Your task to perform on an android device: Open Android settings Image 0: 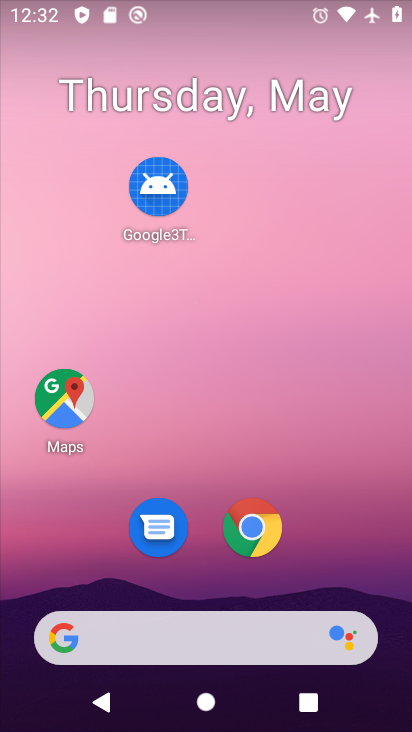
Step 0: press home button
Your task to perform on an android device: Open Android settings Image 1: 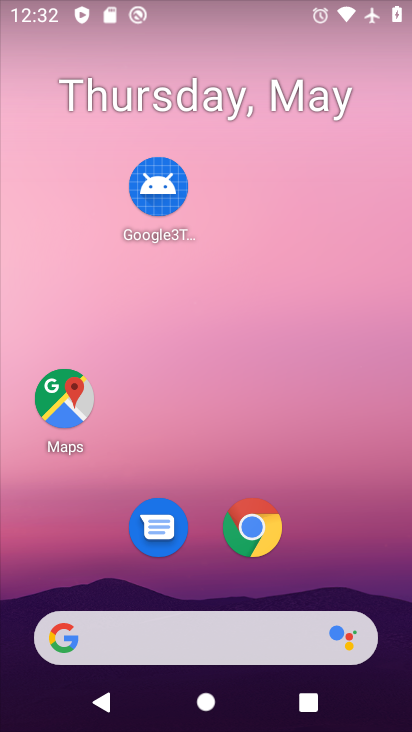
Step 1: drag from (212, 584) to (220, 53)
Your task to perform on an android device: Open Android settings Image 2: 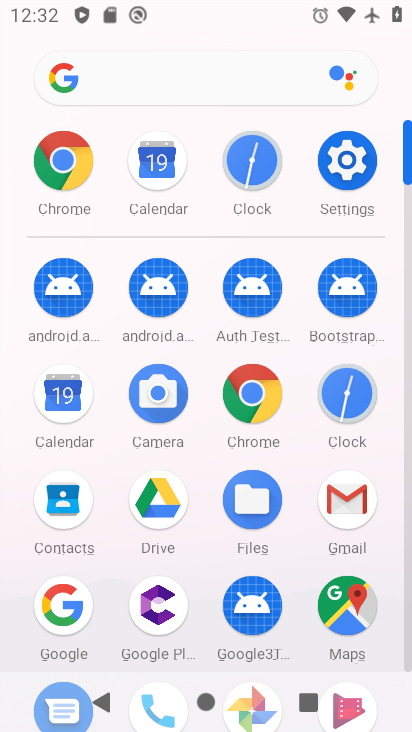
Step 2: click (348, 156)
Your task to perform on an android device: Open Android settings Image 3: 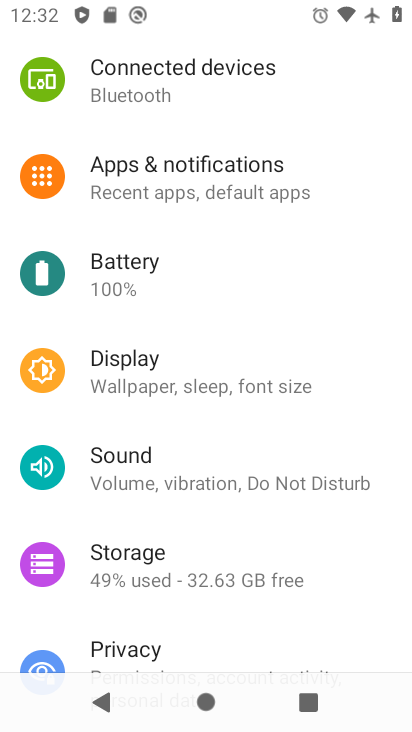
Step 3: drag from (216, 622) to (227, 38)
Your task to perform on an android device: Open Android settings Image 4: 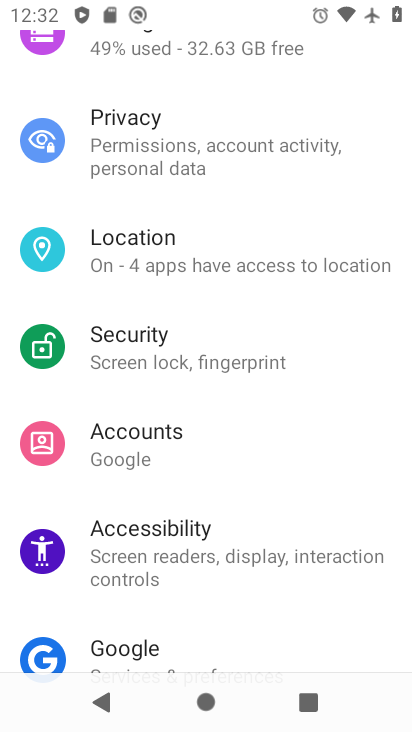
Step 4: drag from (194, 612) to (194, 53)
Your task to perform on an android device: Open Android settings Image 5: 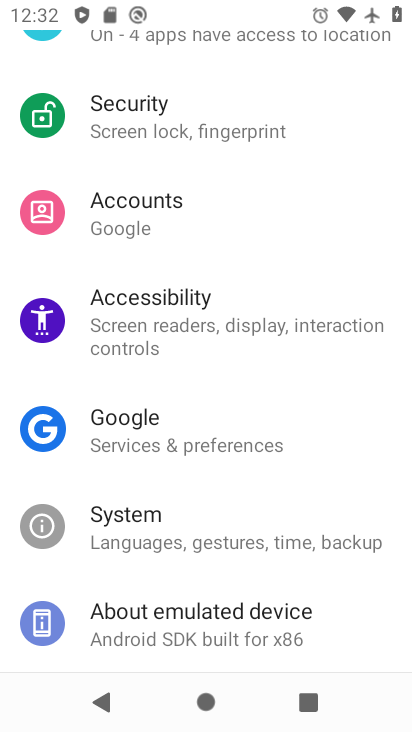
Step 5: click (205, 630)
Your task to perform on an android device: Open Android settings Image 6: 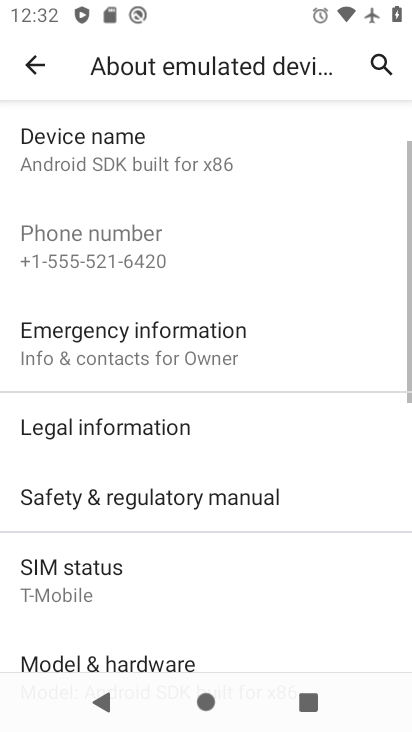
Step 6: drag from (218, 610) to (207, 96)
Your task to perform on an android device: Open Android settings Image 7: 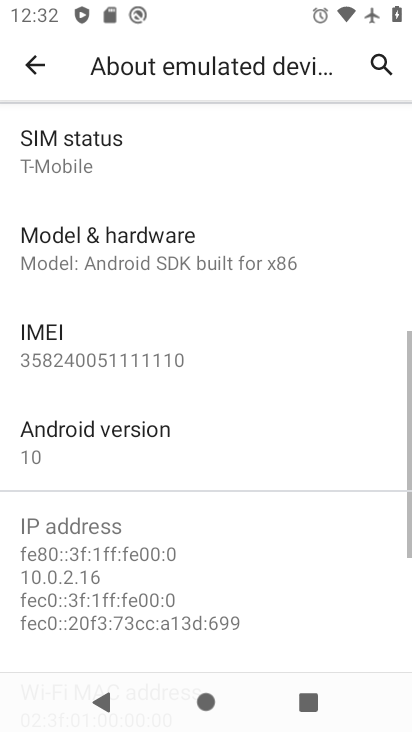
Step 7: click (122, 463)
Your task to perform on an android device: Open Android settings Image 8: 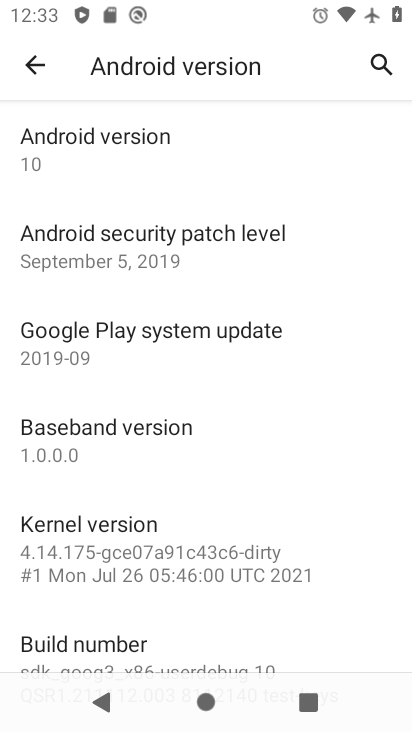
Step 8: task complete